Your task to perform on an android device: Open settings Image 0: 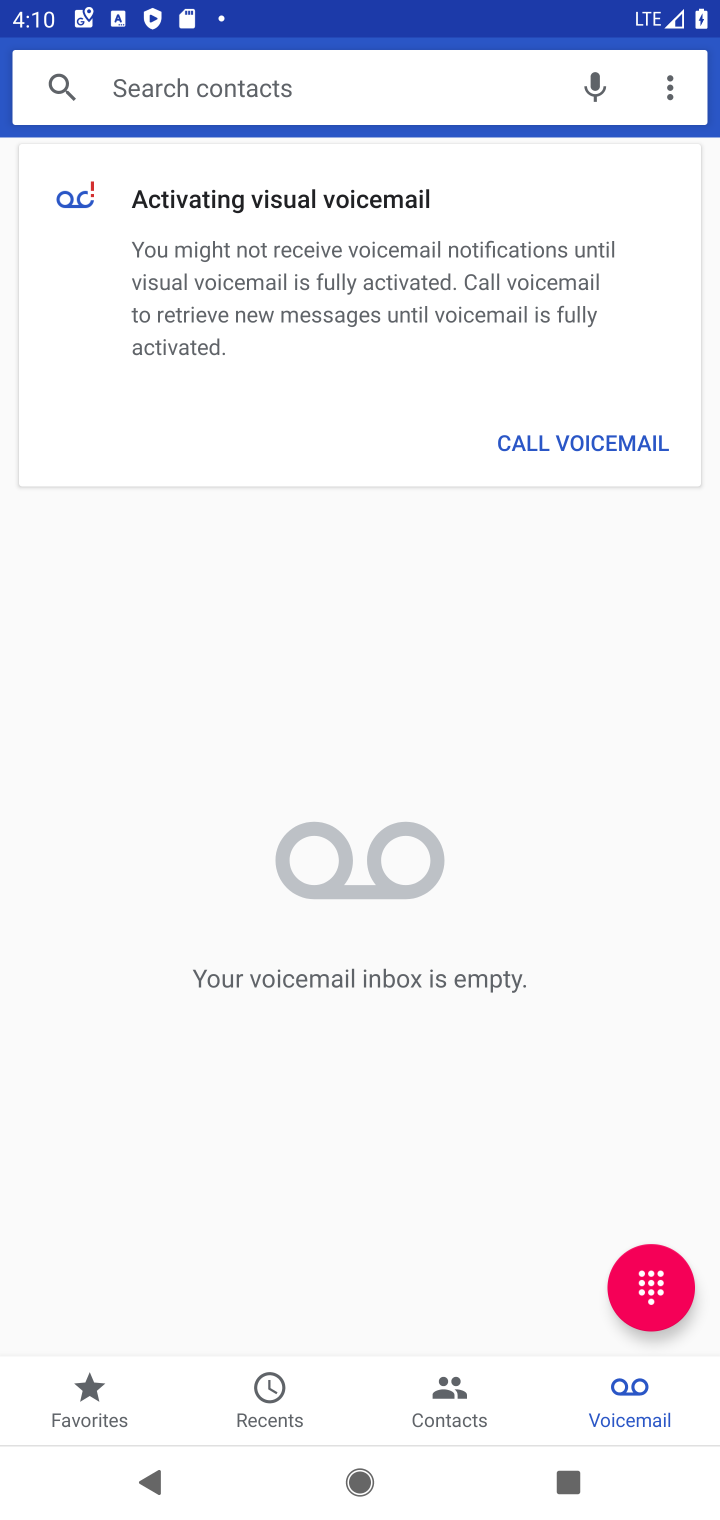
Step 0: press home button
Your task to perform on an android device: Open settings Image 1: 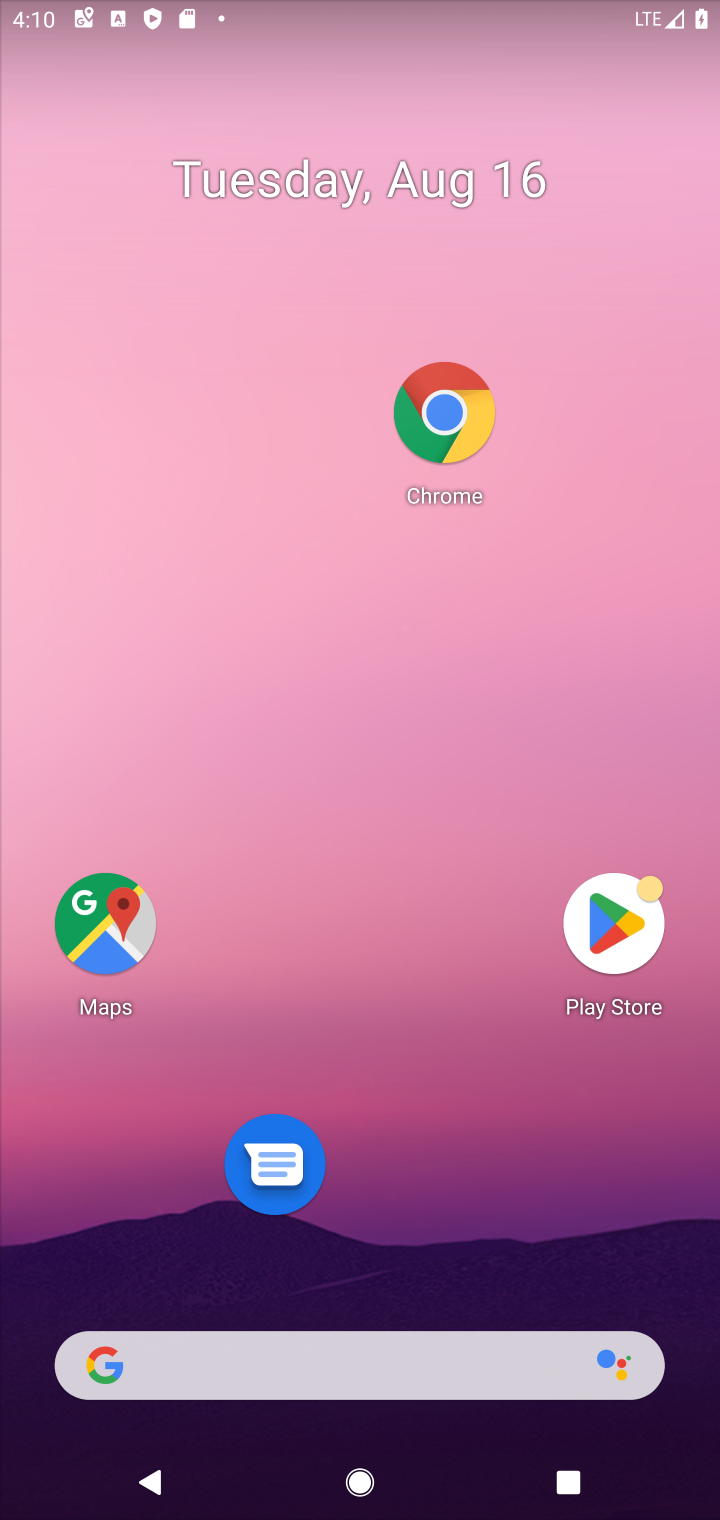
Step 1: drag from (384, 1136) to (294, 121)
Your task to perform on an android device: Open settings Image 2: 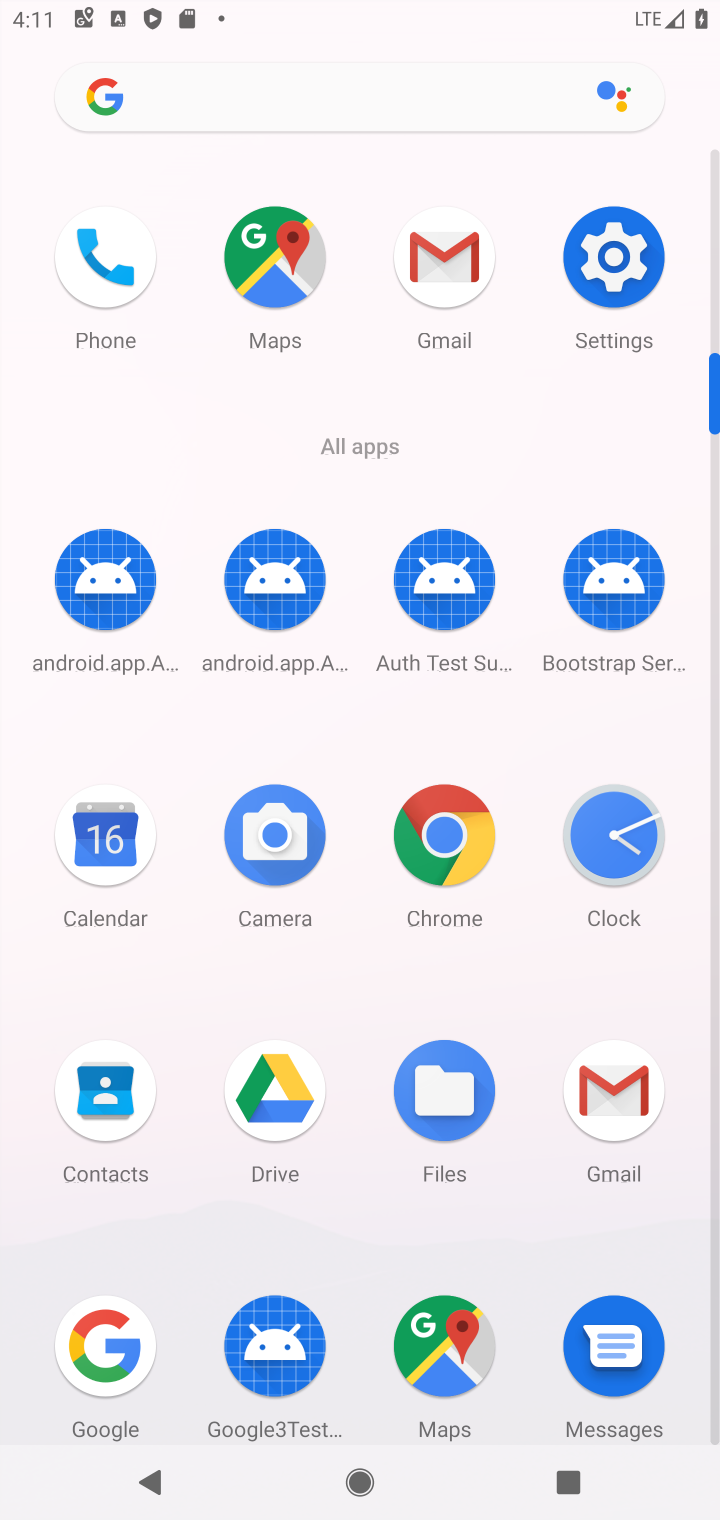
Step 2: click (619, 286)
Your task to perform on an android device: Open settings Image 3: 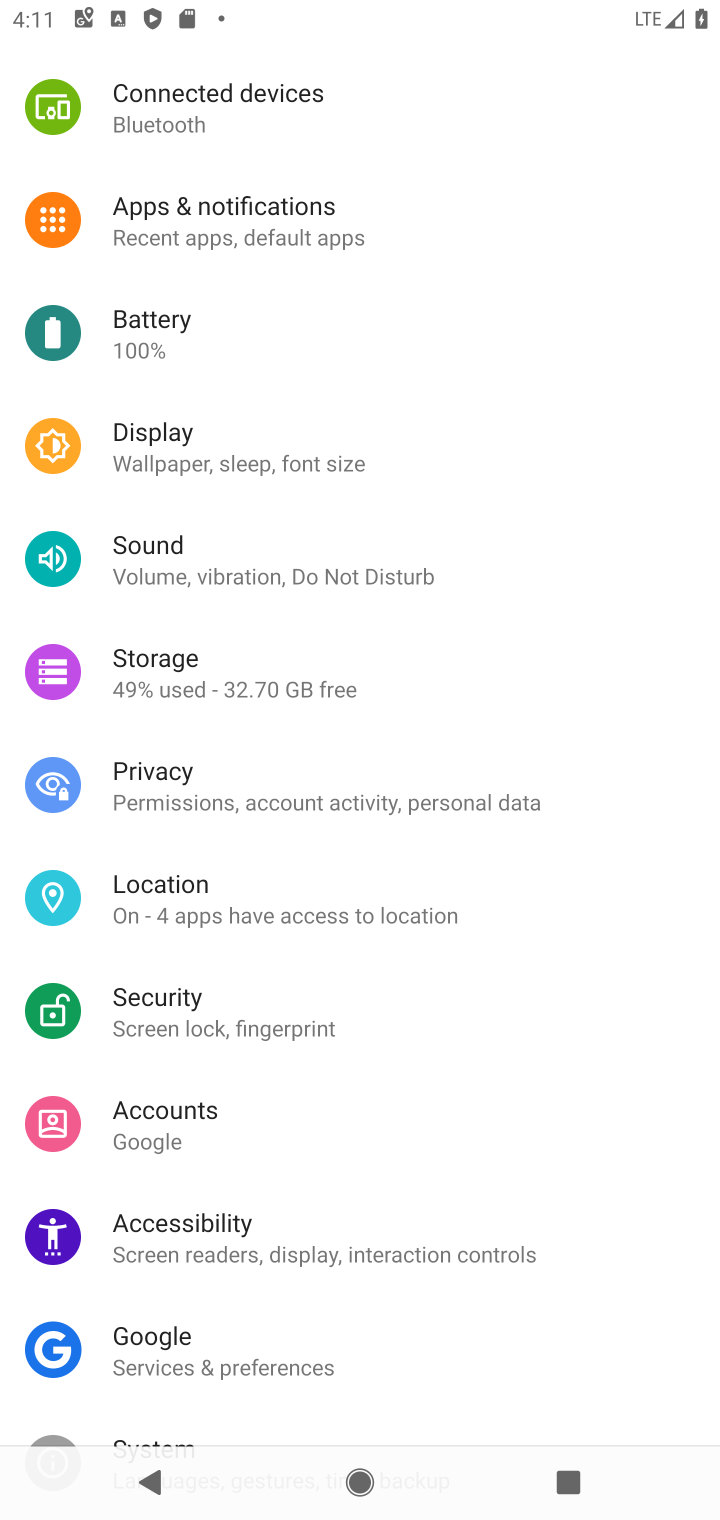
Step 3: task complete